Your task to perform on an android device: What is the news today? Image 0: 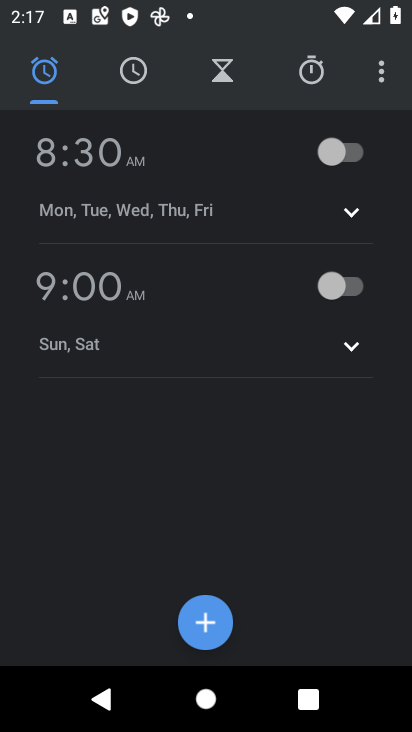
Step 0: press home button
Your task to perform on an android device: What is the news today? Image 1: 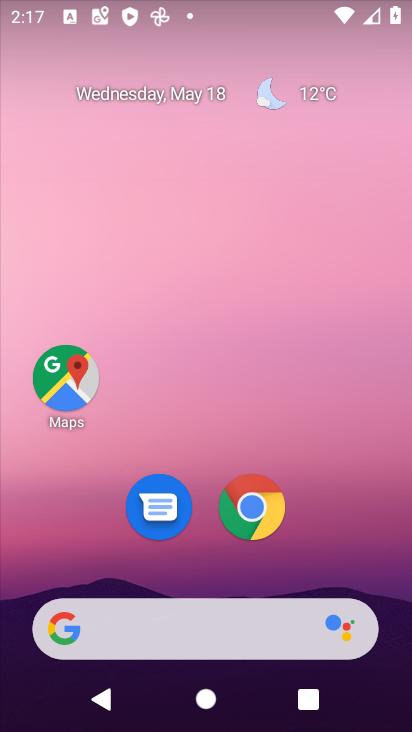
Step 1: task complete